Your task to perform on an android device: turn off smart reply in the gmail app Image 0: 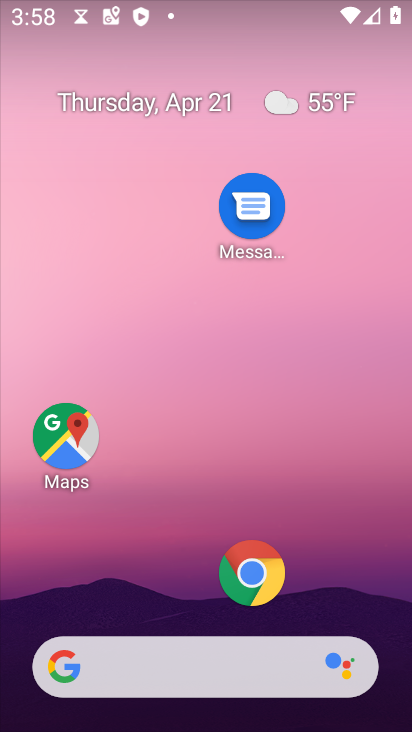
Step 0: drag from (144, 708) to (256, 168)
Your task to perform on an android device: turn off smart reply in the gmail app Image 1: 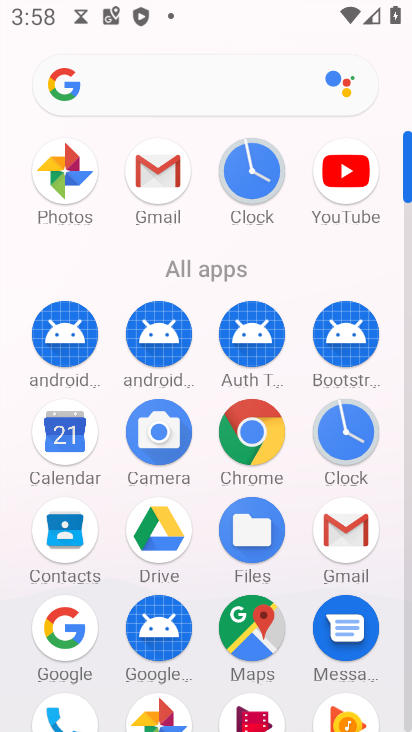
Step 1: click (333, 515)
Your task to perform on an android device: turn off smart reply in the gmail app Image 2: 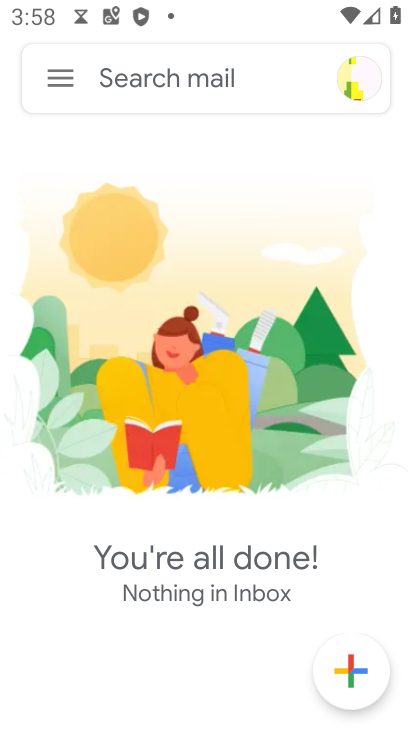
Step 2: click (65, 90)
Your task to perform on an android device: turn off smart reply in the gmail app Image 3: 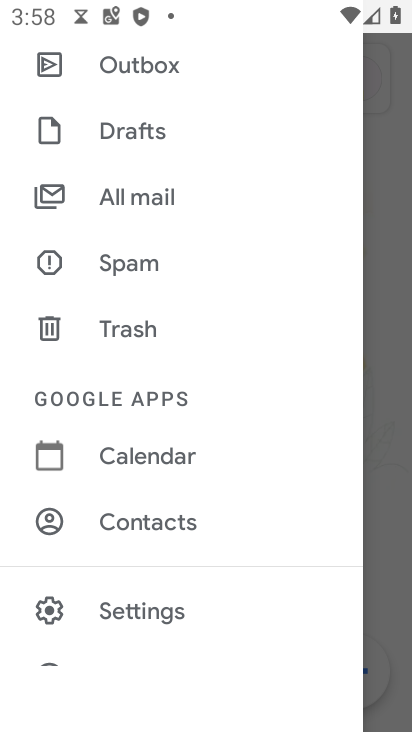
Step 3: click (120, 617)
Your task to perform on an android device: turn off smart reply in the gmail app Image 4: 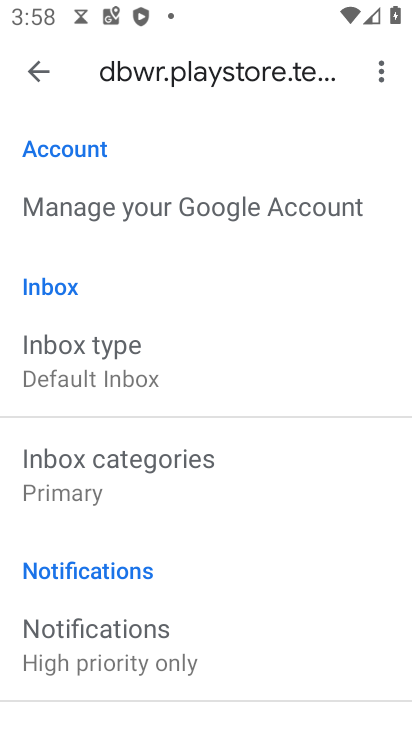
Step 4: drag from (183, 580) to (177, 206)
Your task to perform on an android device: turn off smart reply in the gmail app Image 5: 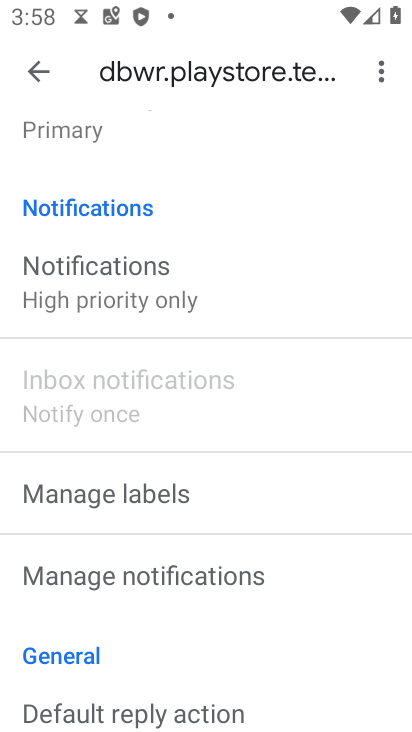
Step 5: drag from (154, 629) to (178, 277)
Your task to perform on an android device: turn off smart reply in the gmail app Image 6: 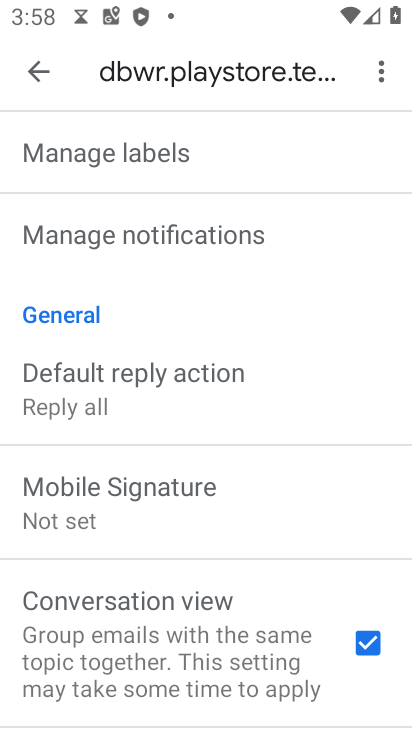
Step 6: drag from (147, 487) to (165, 219)
Your task to perform on an android device: turn off smart reply in the gmail app Image 7: 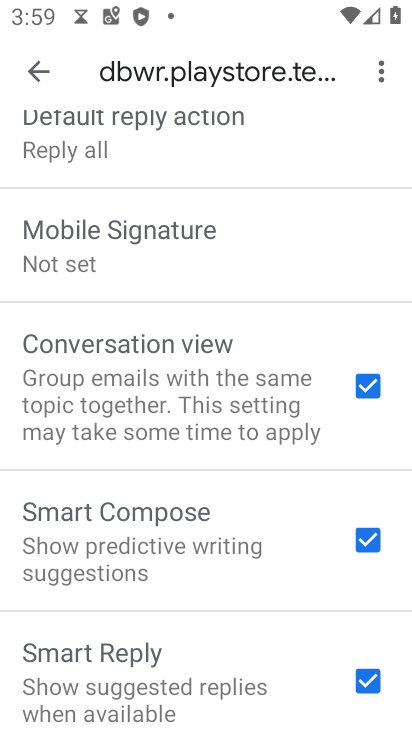
Step 7: drag from (187, 654) to (199, 590)
Your task to perform on an android device: turn off smart reply in the gmail app Image 8: 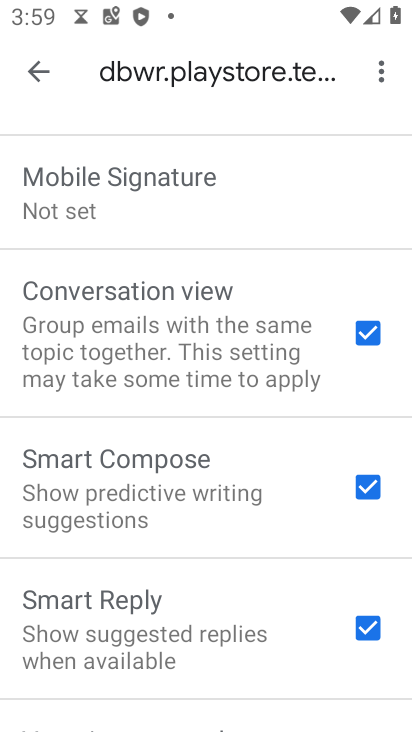
Step 8: click (349, 627)
Your task to perform on an android device: turn off smart reply in the gmail app Image 9: 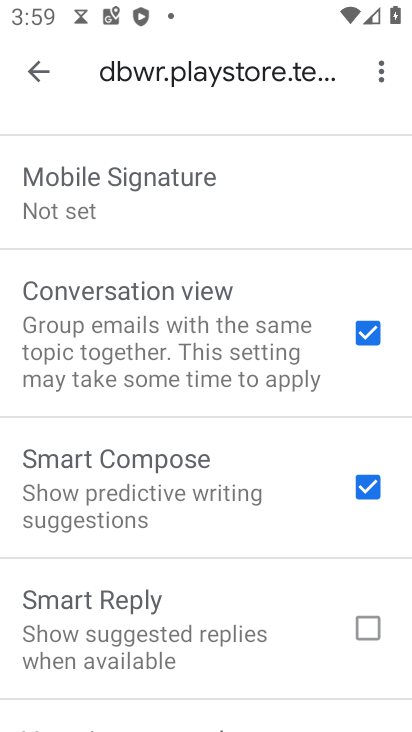
Step 9: task complete